Your task to perform on an android device: Open Google Maps Image 0: 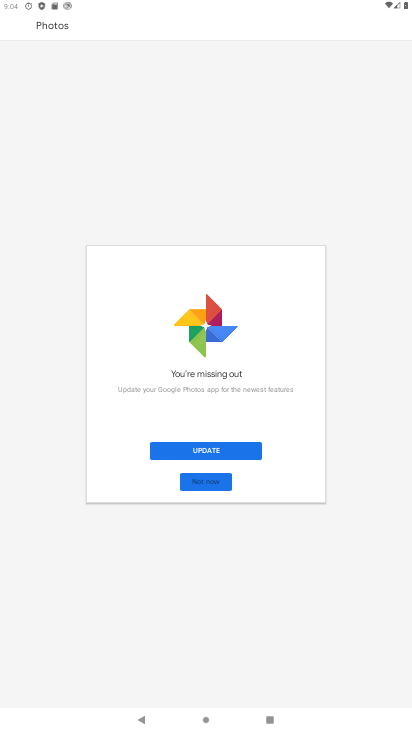
Step 0: press home button
Your task to perform on an android device: Open Google Maps Image 1: 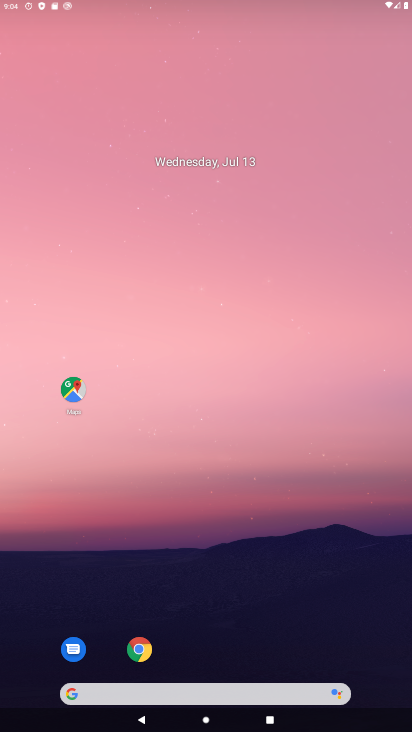
Step 1: drag from (235, 684) to (336, 6)
Your task to perform on an android device: Open Google Maps Image 2: 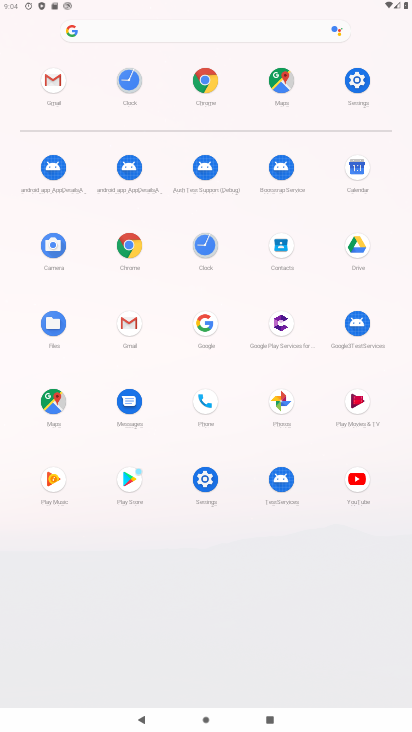
Step 2: click (67, 407)
Your task to perform on an android device: Open Google Maps Image 3: 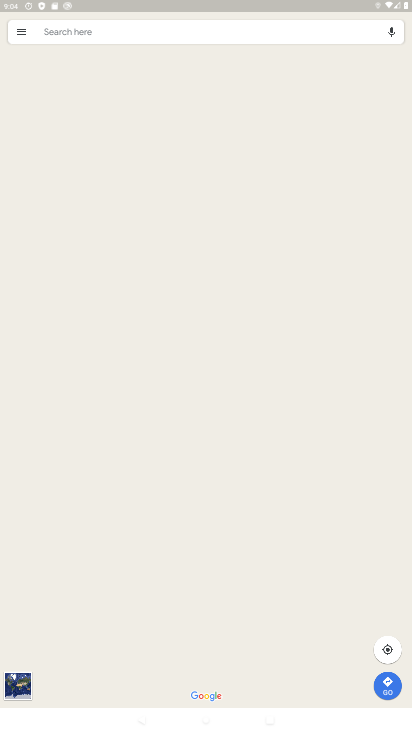
Step 3: click (18, 31)
Your task to perform on an android device: Open Google Maps Image 4: 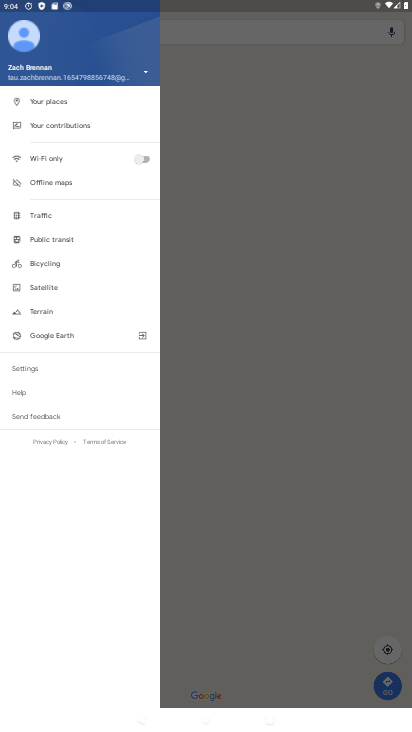
Step 4: click (285, 304)
Your task to perform on an android device: Open Google Maps Image 5: 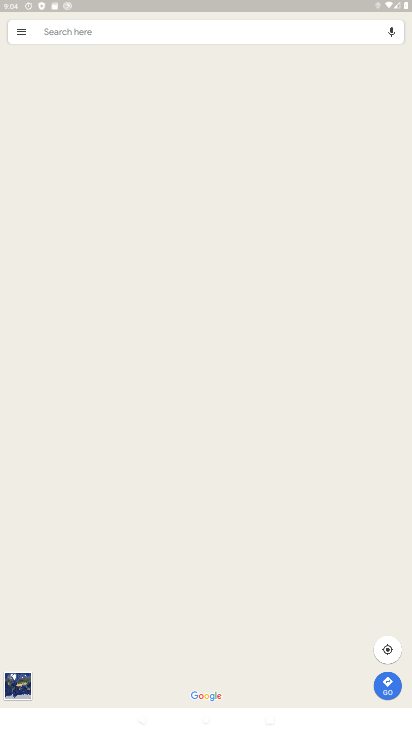
Step 5: task complete